Your task to perform on an android device: turn off translation in the chrome app Image 0: 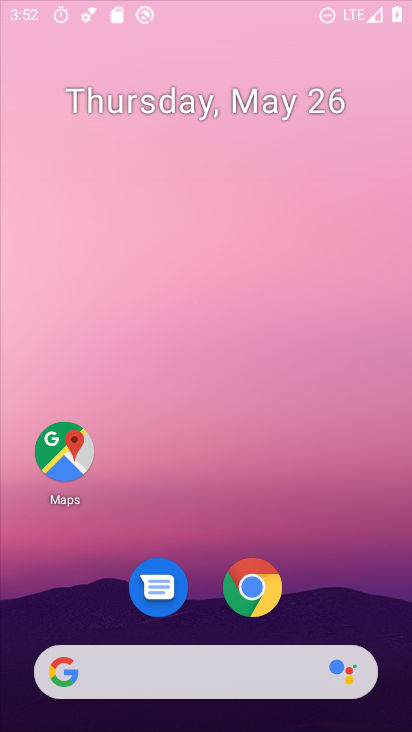
Step 0: click (83, 449)
Your task to perform on an android device: turn off translation in the chrome app Image 1: 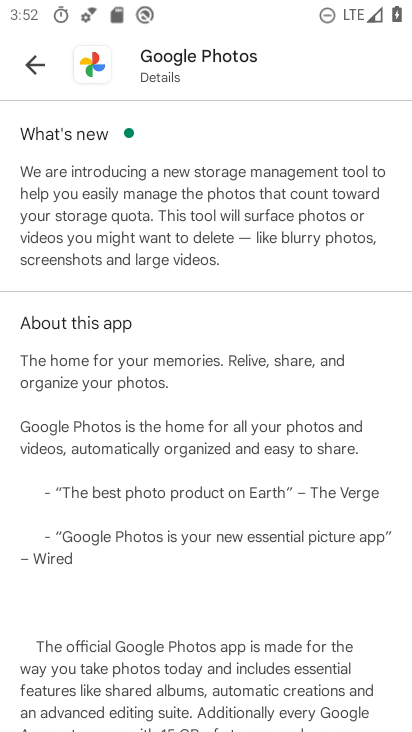
Step 1: press home button
Your task to perform on an android device: turn off translation in the chrome app Image 2: 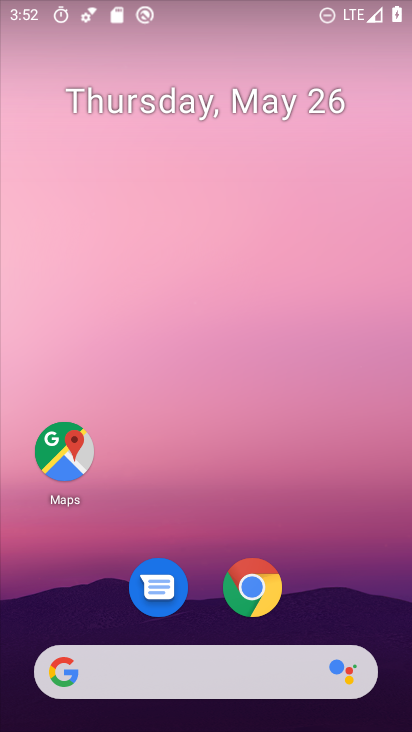
Step 2: drag from (308, 571) to (309, 109)
Your task to perform on an android device: turn off translation in the chrome app Image 3: 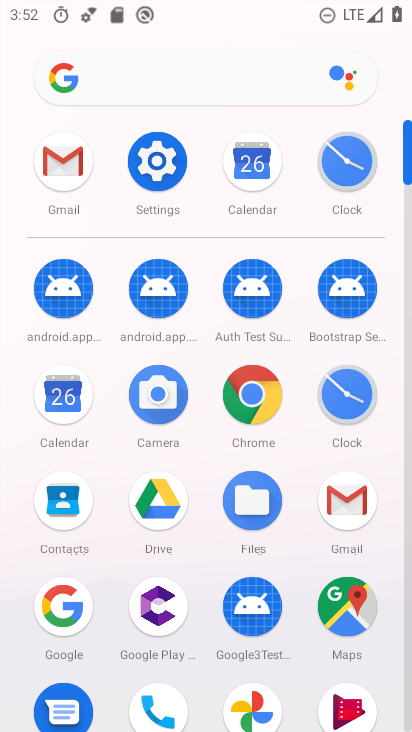
Step 3: click (240, 376)
Your task to perform on an android device: turn off translation in the chrome app Image 4: 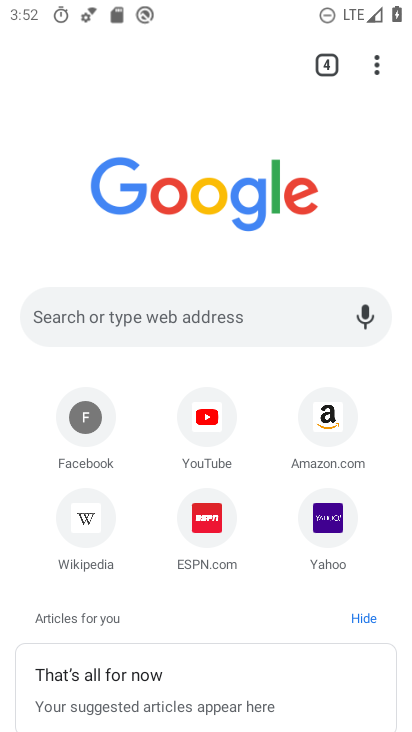
Step 4: drag from (379, 64) to (211, 558)
Your task to perform on an android device: turn off translation in the chrome app Image 5: 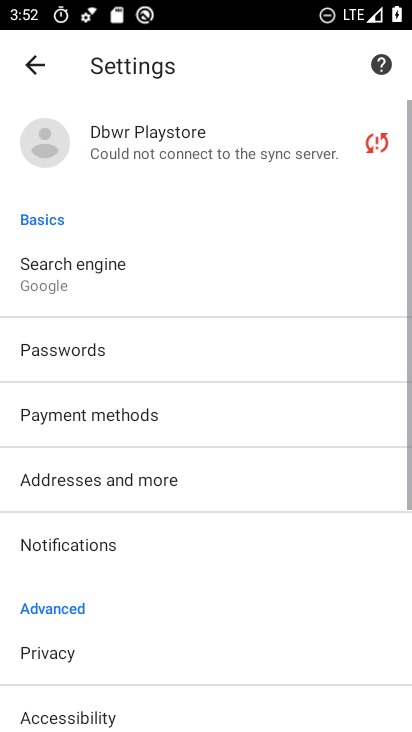
Step 5: drag from (210, 557) to (221, 105)
Your task to perform on an android device: turn off translation in the chrome app Image 6: 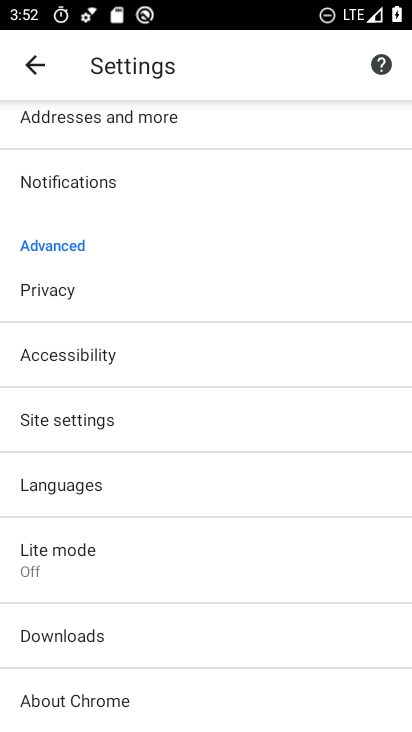
Step 6: drag from (143, 599) to (164, 348)
Your task to perform on an android device: turn off translation in the chrome app Image 7: 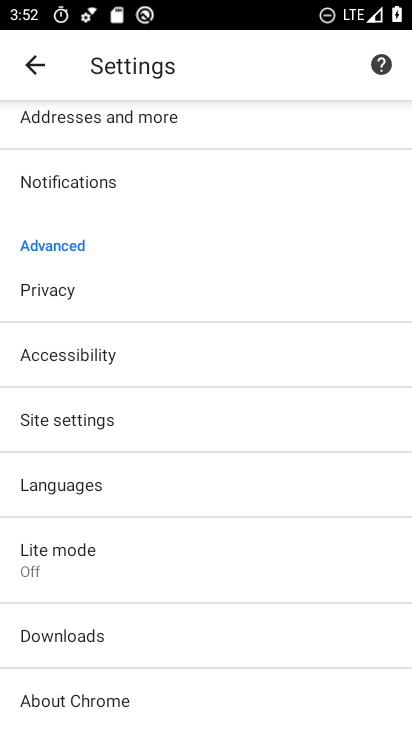
Step 7: click (93, 483)
Your task to perform on an android device: turn off translation in the chrome app Image 8: 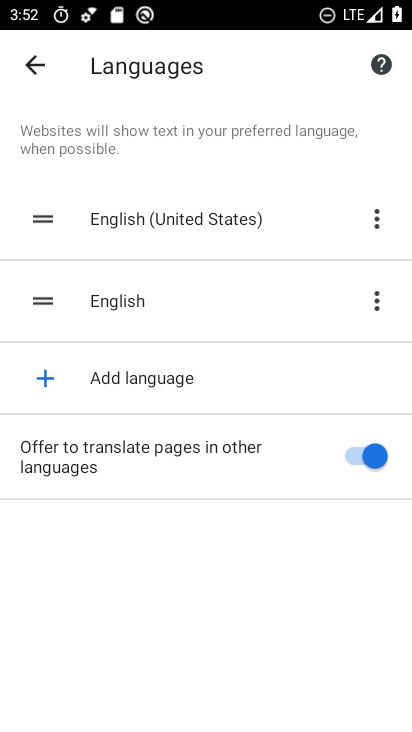
Step 8: click (347, 454)
Your task to perform on an android device: turn off translation in the chrome app Image 9: 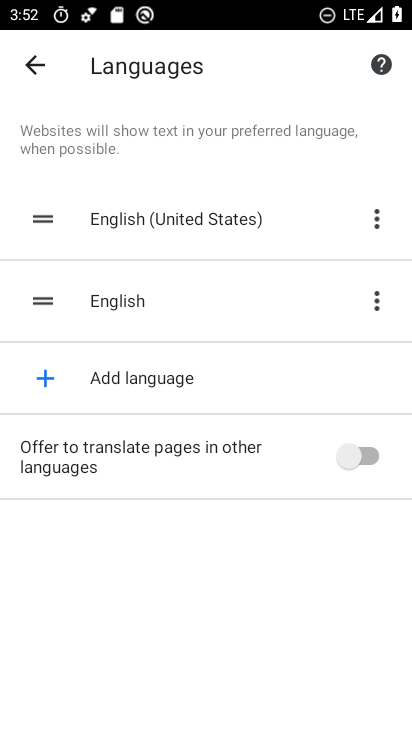
Step 9: task complete